Your task to perform on an android device: Open Maps and search for coffee Image 0: 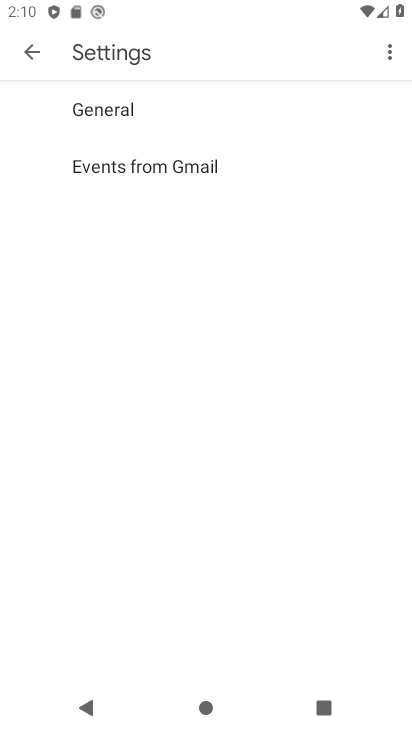
Step 0: drag from (224, 4) to (222, 375)
Your task to perform on an android device: Open Maps and search for coffee Image 1: 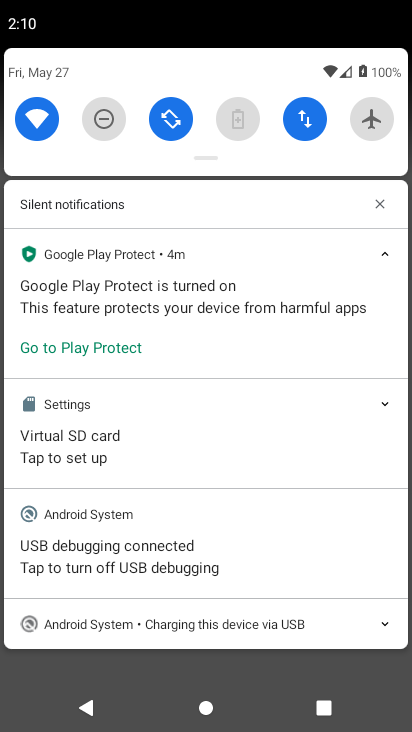
Step 1: press home button
Your task to perform on an android device: Open Maps and search for coffee Image 2: 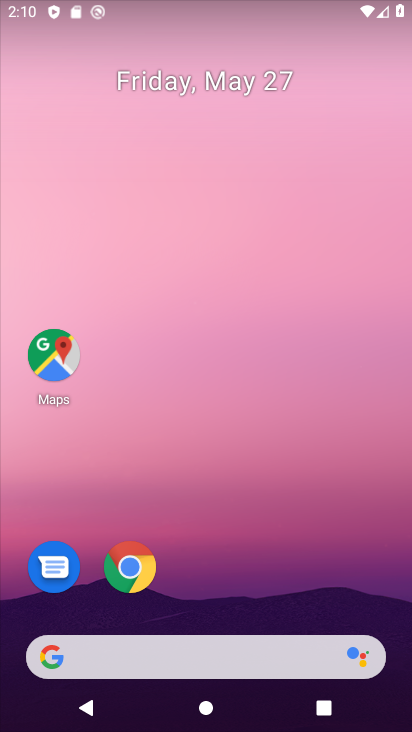
Step 2: click (48, 343)
Your task to perform on an android device: Open Maps and search for coffee Image 3: 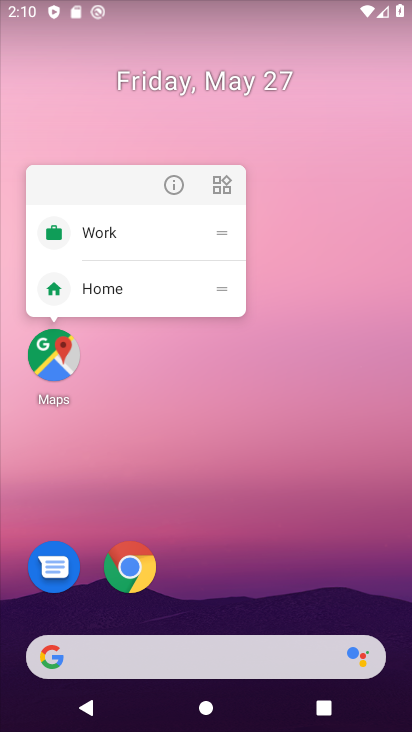
Step 3: click (53, 353)
Your task to perform on an android device: Open Maps and search for coffee Image 4: 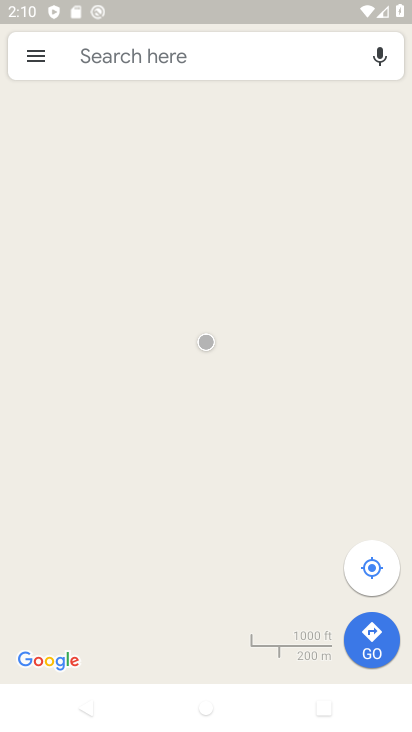
Step 4: click (135, 53)
Your task to perform on an android device: Open Maps and search for coffee Image 5: 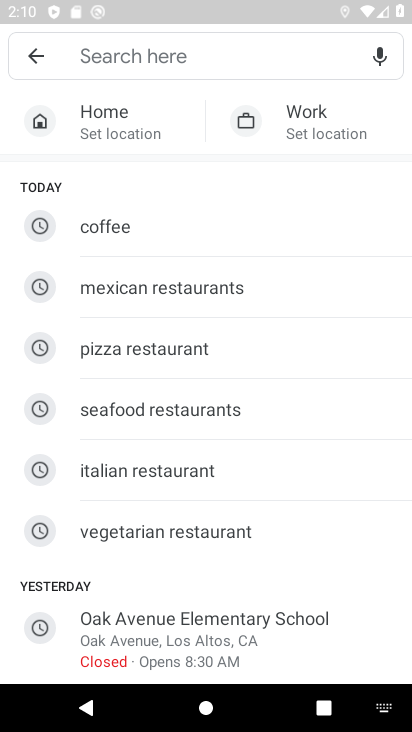
Step 5: type "coffee"
Your task to perform on an android device: Open Maps and search for coffee Image 6: 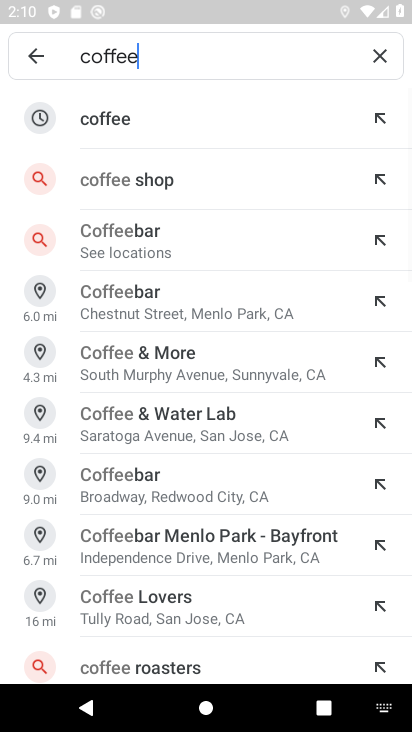
Step 6: click (102, 119)
Your task to perform on an android device: Open Maps and search for coffee Image 7: 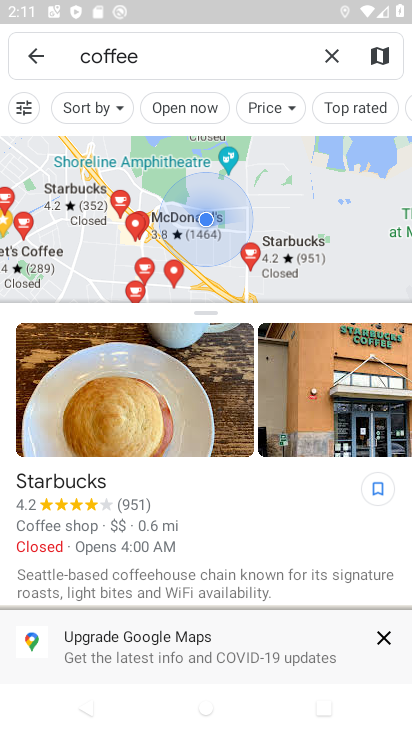
Step 7: task complete